Your task to perform on an android device: turn off location Image 0: 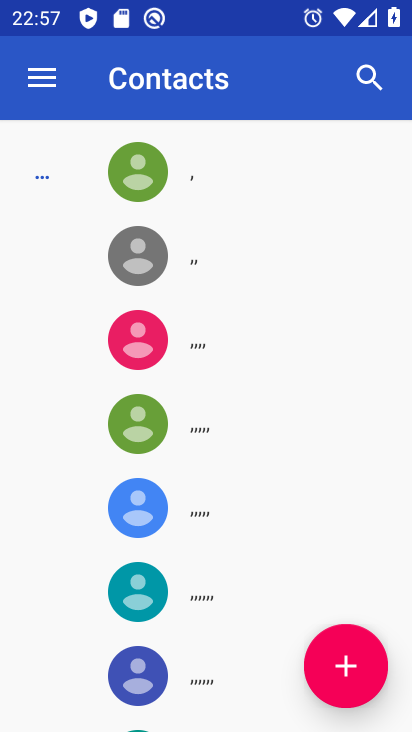
Step 0: press home button
Your task to perform on an android device: turn off location Image 1: 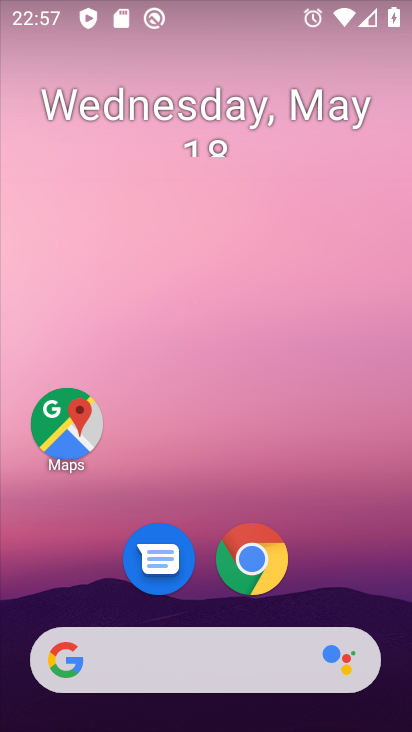
Step 1: drag from (303, 604) to (283, 93)
Your task to perform on an android device: turn off location Image 2: 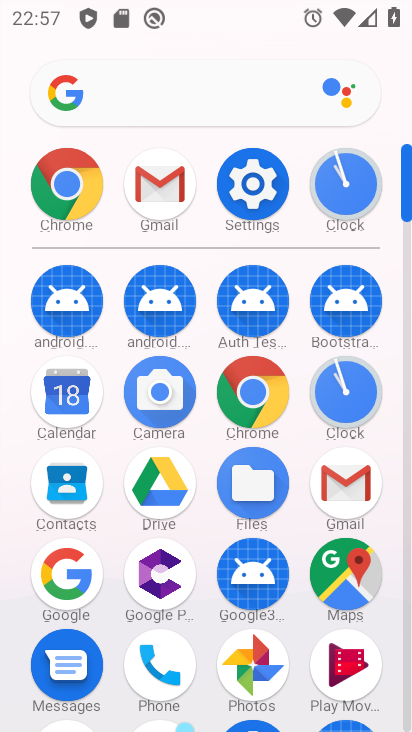
Step 2: click (253, 188)
Your task to perform on an android device: turn off location Image 3: 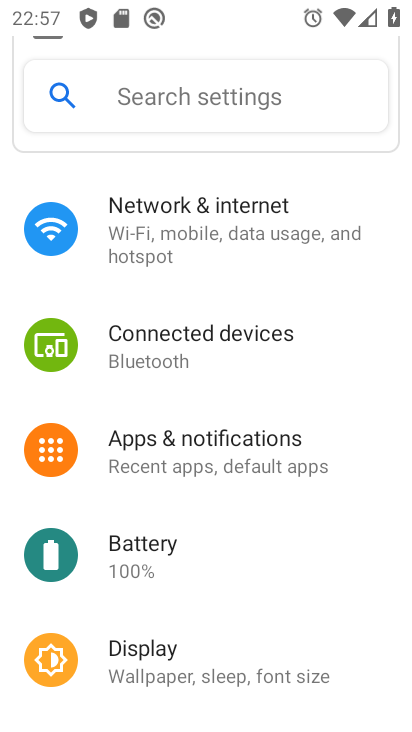
Step 3: drag from (198, 628) to (173, 375)
Your task to perform on an android device: turn off location Image 4: 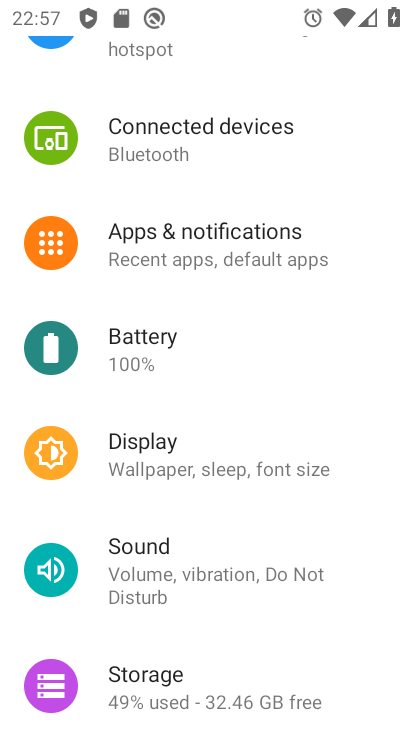
Step 4: drag from (212, 550) to (170, 240)
Your task to perform on an android device: turn off location Image 5: 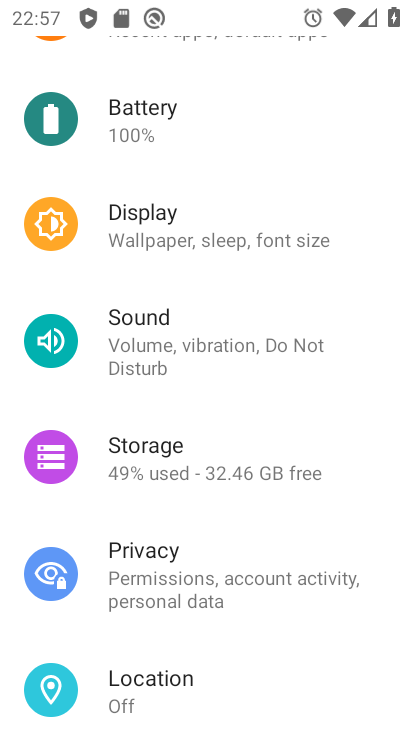
Step 5: click (170, 687)
Your task to perform on an android device: turn off location Image 6: 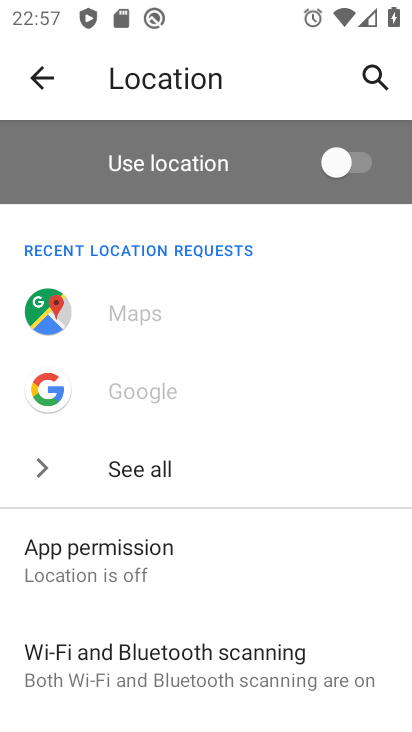
Step 6: task complete